Your task to perform on an android device: empty trash in the gmail app Image 0: 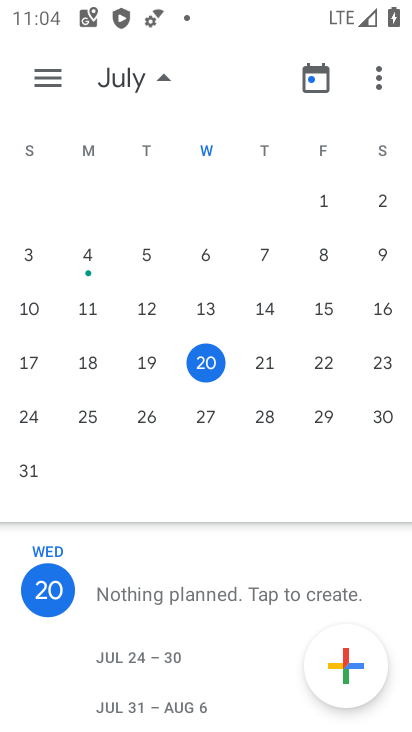
Step 0: press home button
Your task to perform on an android device: empty trash in the gmail app Image 1: 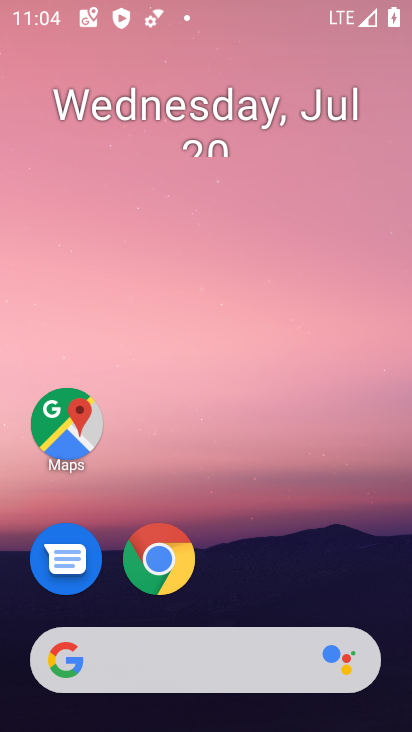
Step 1: drag from (200, 686) to (345, 95)
Your task to perform on an android device: empty trash in the gmail app Image 2: 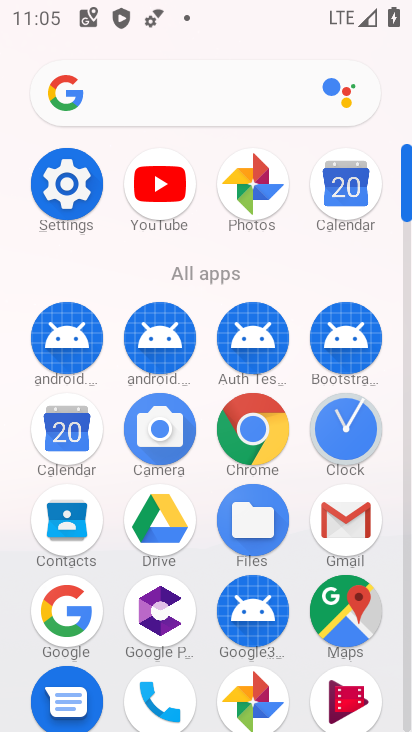
Step 2: click (328, 530)
Your task to perform on an android device: empty trash in the gmail app Image 3: 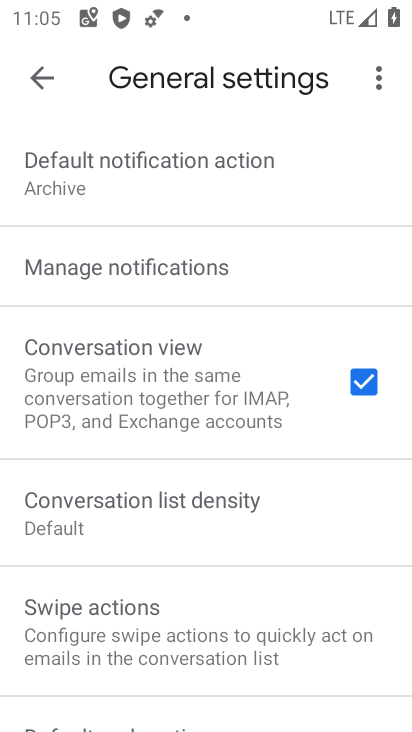
Step 3: click (41, 75)
Your task to perform on an android device: empty trash in the gmail app Image 4: 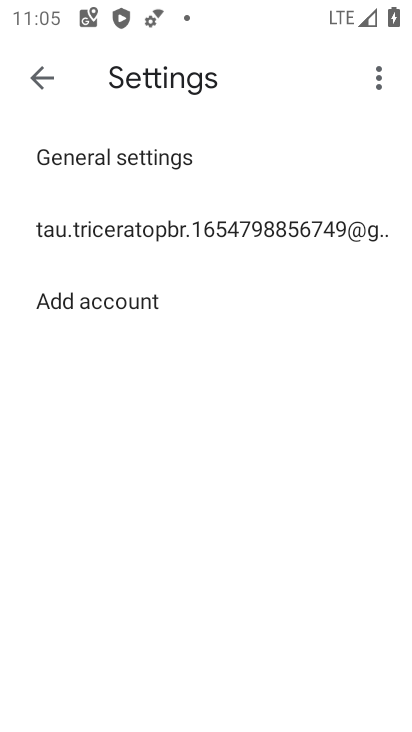
Step 4: click (41, 75)
Your task to perform on an android device: empty trash in the gmail app Image 5: 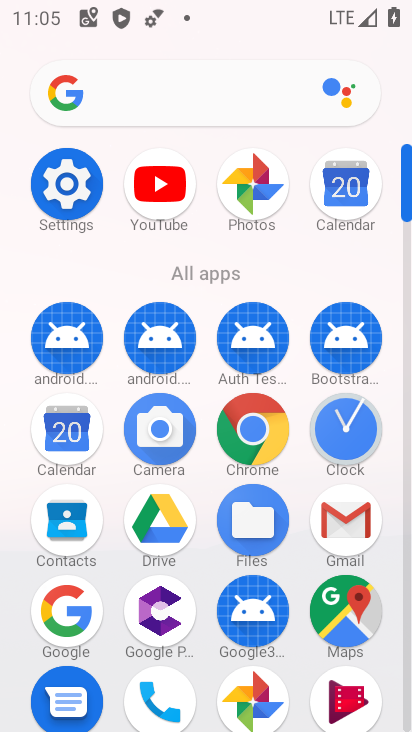
Step 5: click (332, 515)
Your task to perform on an android device: empty trash in the gmail app Image 6: 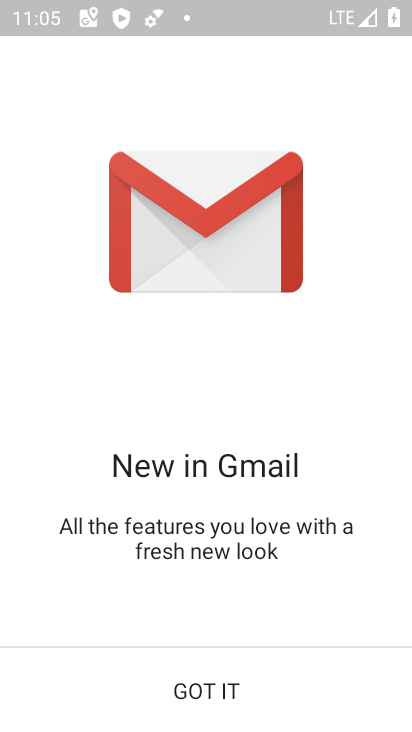
Step 6: click (163, 692)
Your task to perform on an android device: empty trash in the gmail app Image 7: 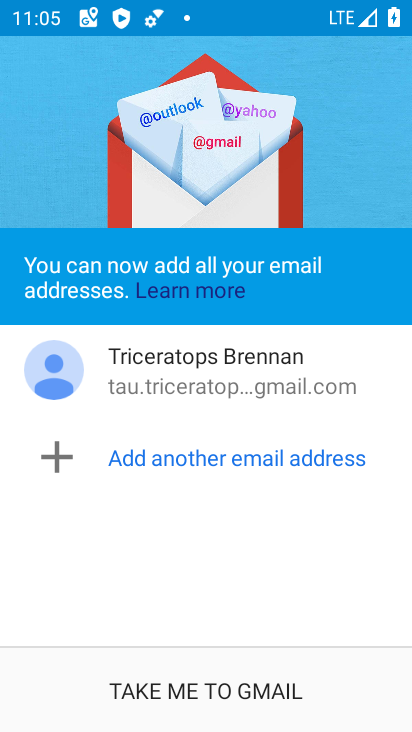
Step 7: click (189, 688)
Your task to perform on an android device: empty trash in the gmail app Image 8: 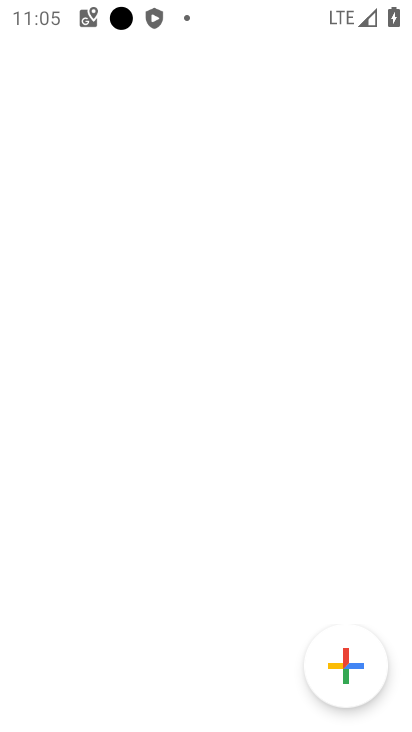
Step 8: click (189, 688)
Your task to perform on an android device: empty trash in the gmail app Image 9: 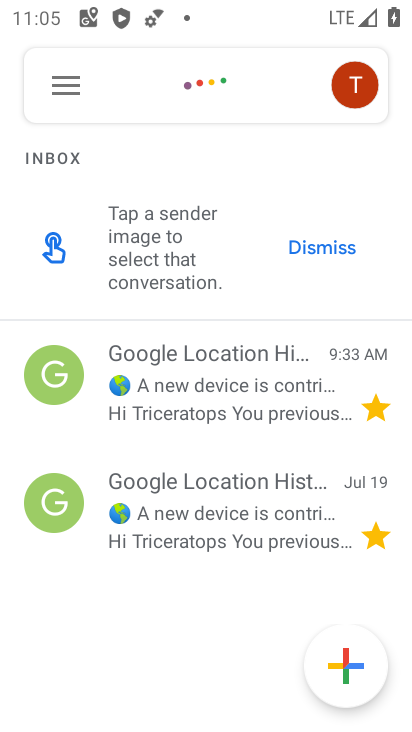
Step 9: click (78, 92)
Your task to perform on an android device: empty trash in the gmail app Image 10: 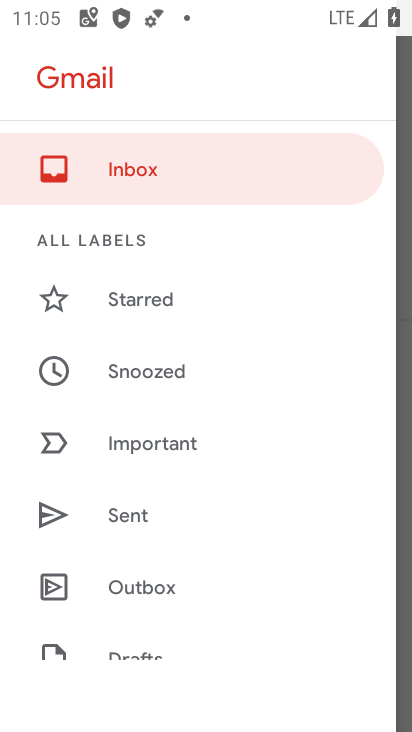
Step 10: drag from (130, 503) to (246, 0)
Your task to perform on an android device: empty trash in the gmail app Image 11: 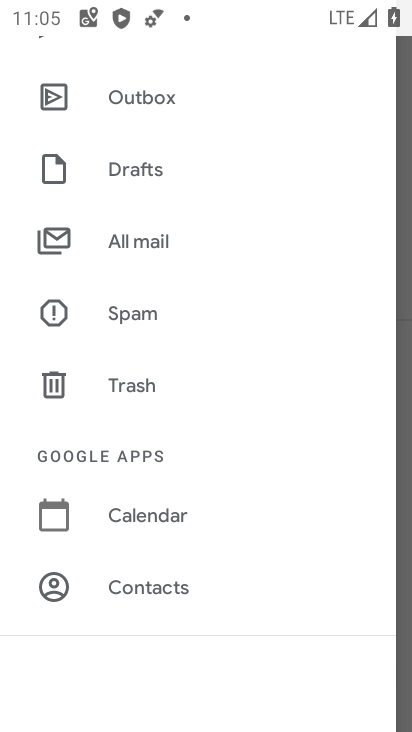
Step 11: click (159, 398)
Your task to perform on an android device: empty trash in the gmail app Image 12: 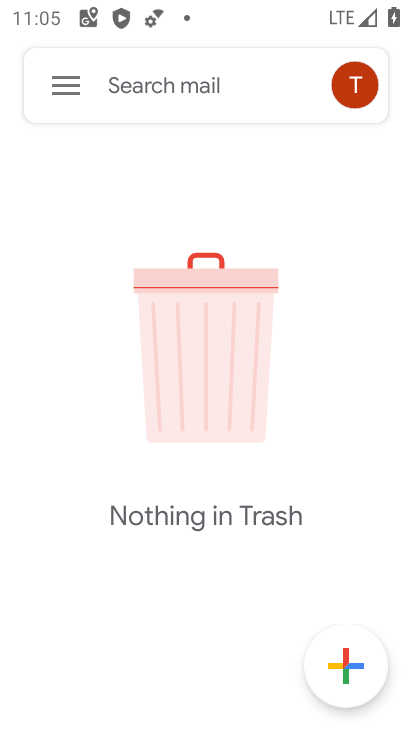
Step 12: click (68, 100)
Your task to perform on an android device: empty trash in the gmail app Image 13: 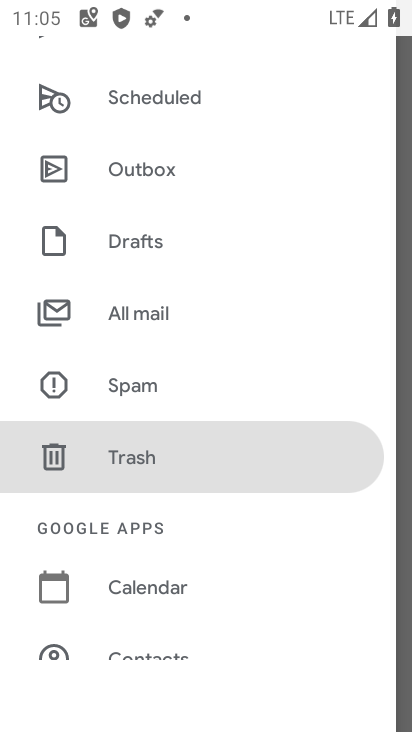
Step 13: task complete